Your task to perform on an android device: Search for dell xps on bestbuy, select the first entry, add it to the cart, then select checkout. Image 0: 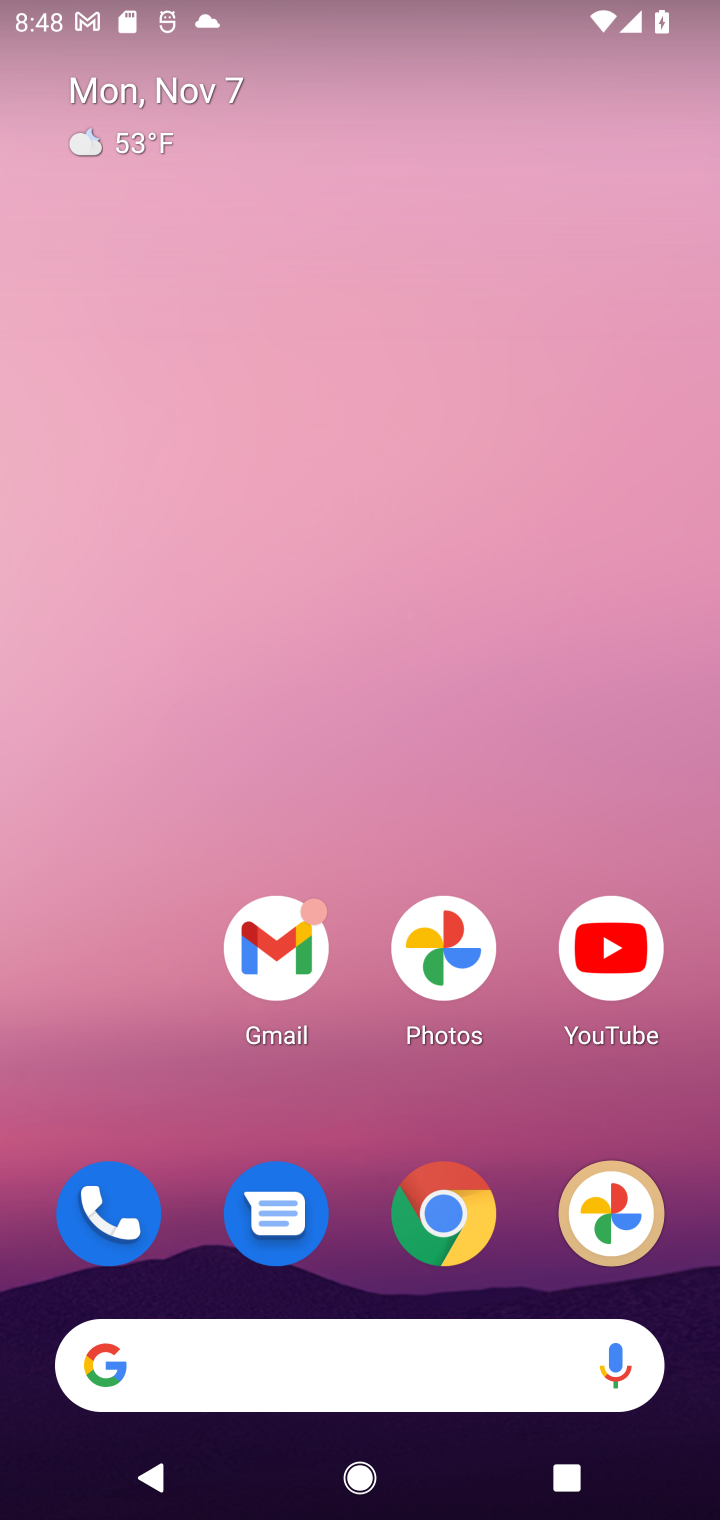
Step 0: click (425, 1241)
Your task to perform on an android device: Search for dell xps on bestbuy, select the first entry, add it to the cart, then select checkout. Image 1: 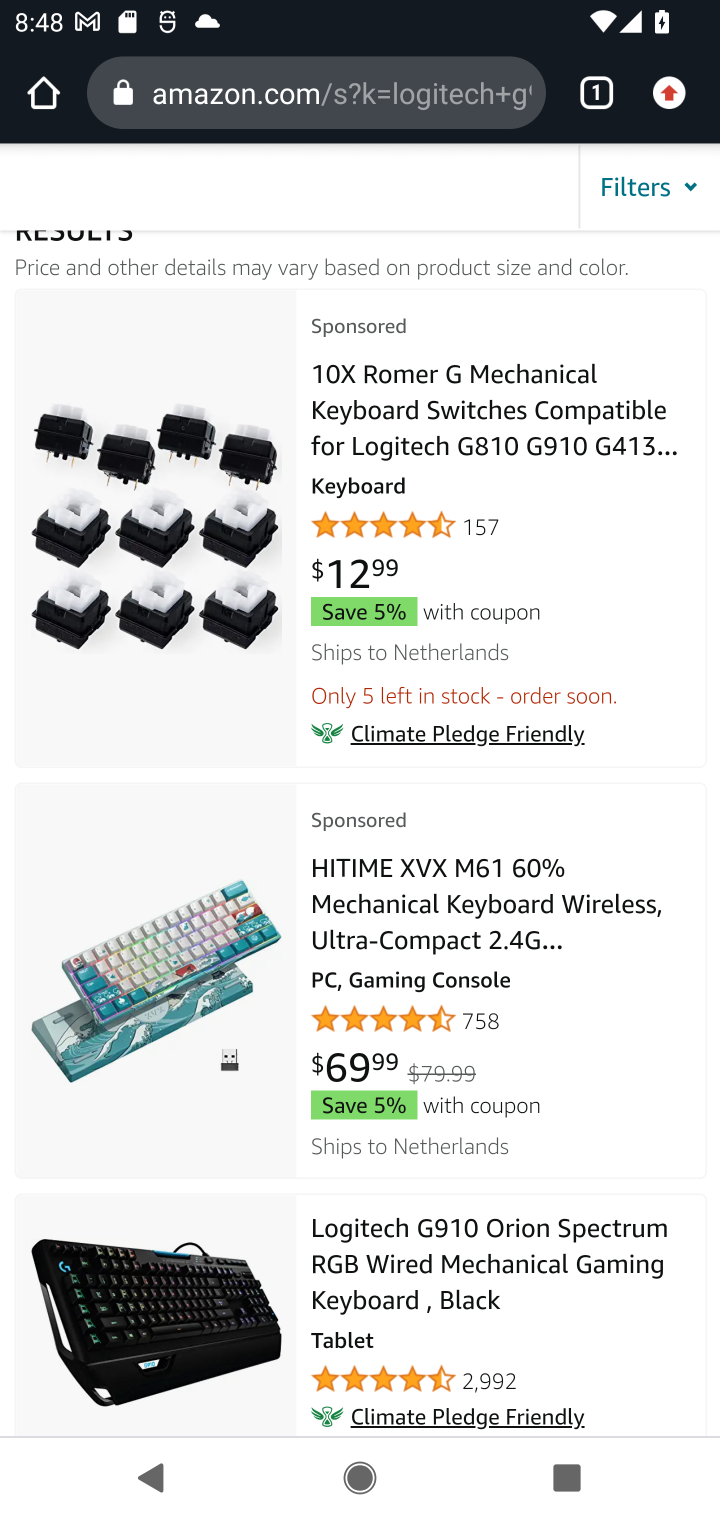
Step 1: click (334, 93)
Your task to perform on an android device: Search for dell xps on bestbuy, select the first entry, add it to the cart, then select checkout. Image 2: 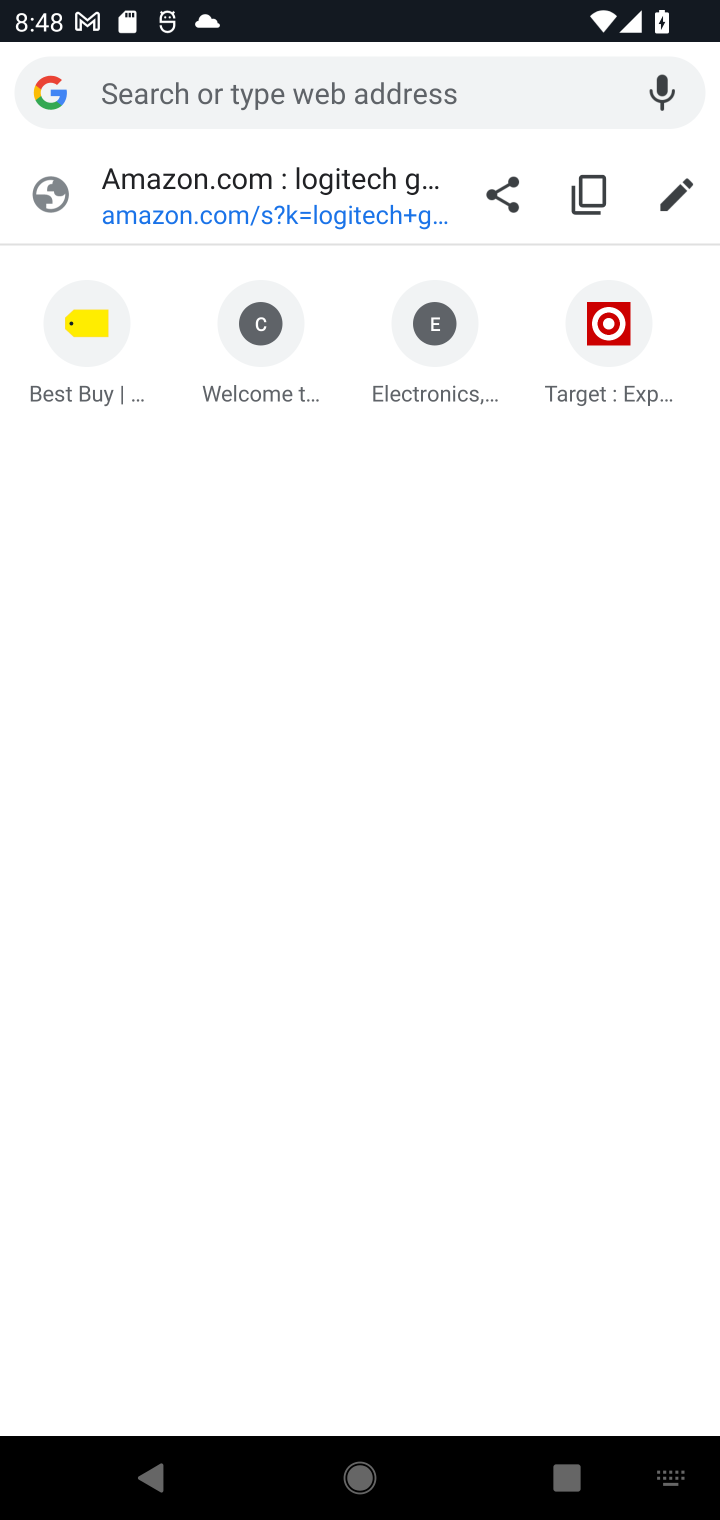
Step 2: click (101, 333)
Your task to perform on an android device: Search for dell xps on bestbuy, select the first entry, add it to the cart, then select checkout. Image 3: 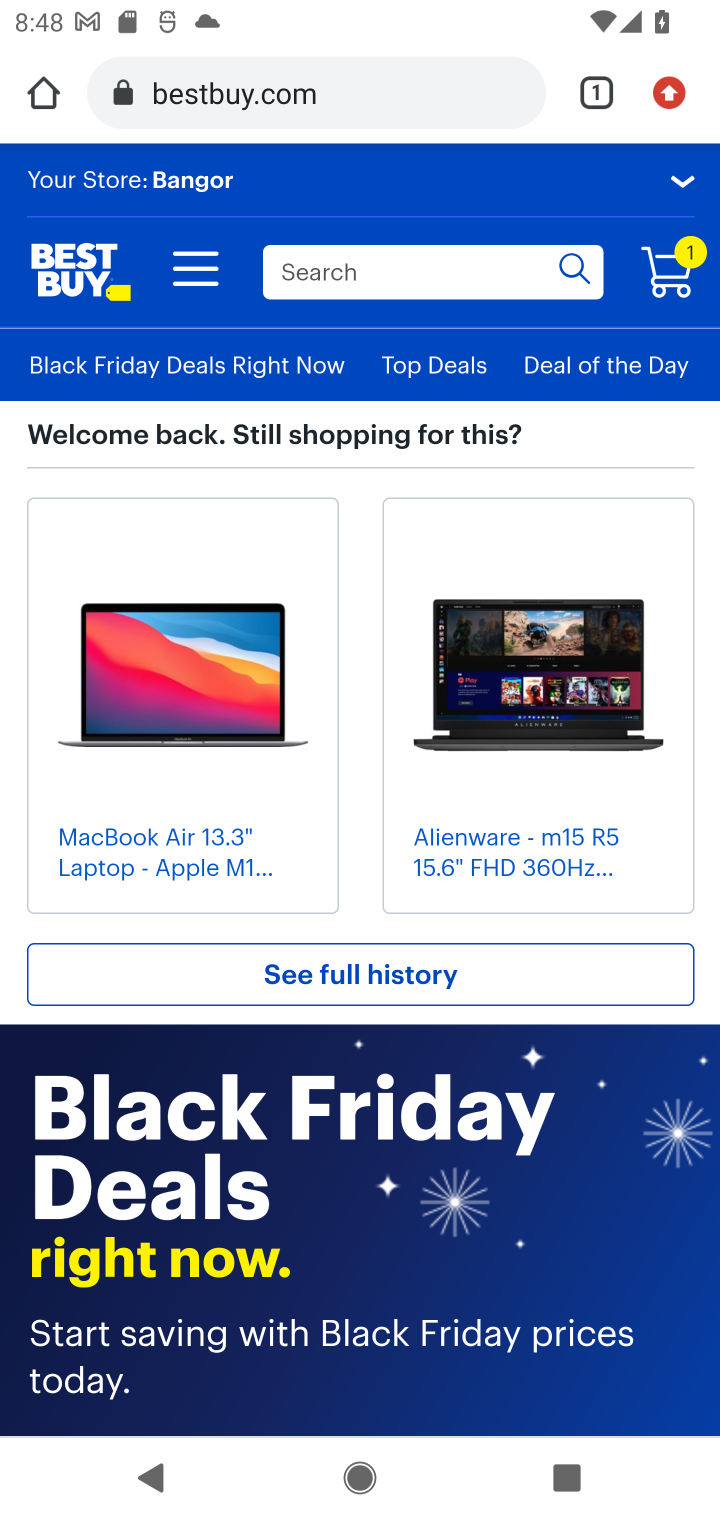
Step 3: click (328, 264)
Your task to perform on an android device: Search for dell xps on bestbuy, select the first entry, add it to the cart, then select checkout. Image 4: 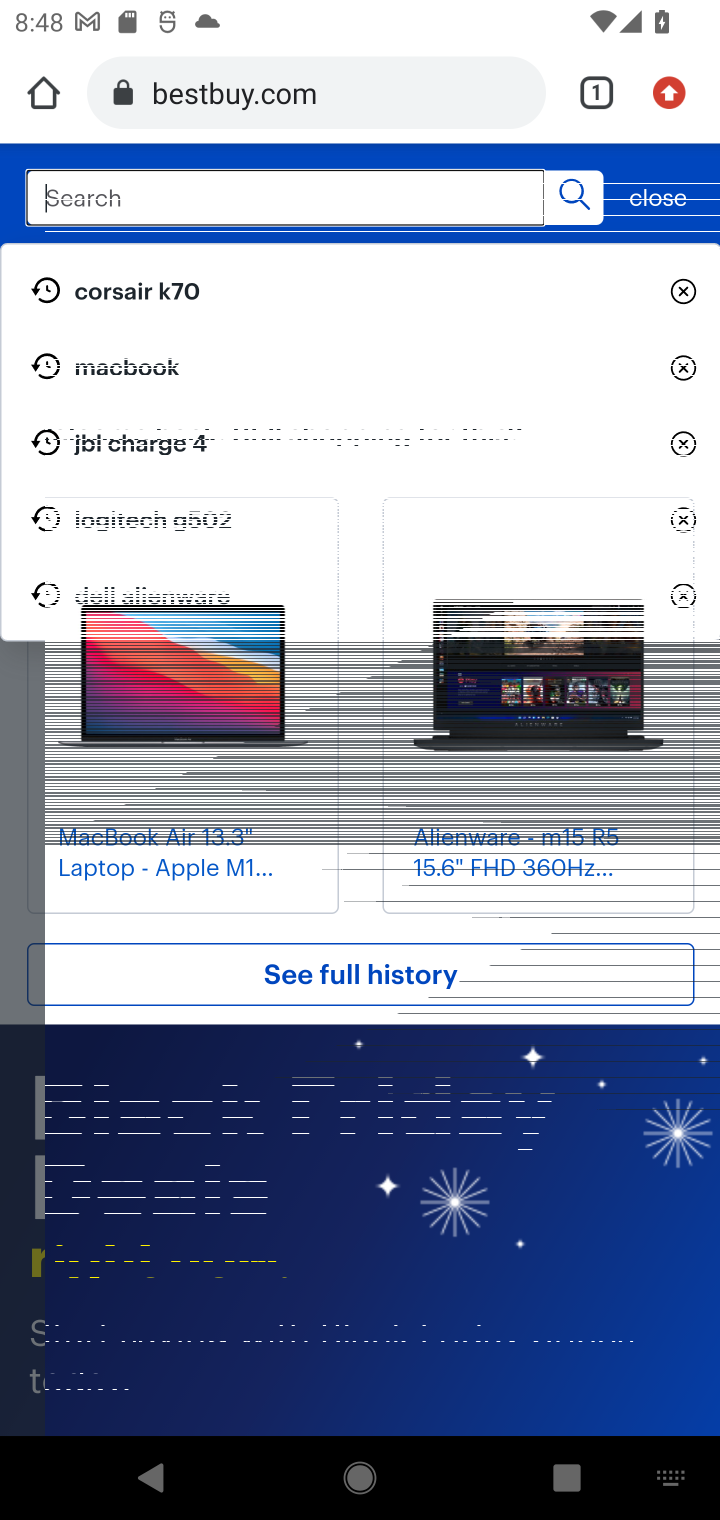
Step 4: type "dell xps "
Your task to perform on an android device: Search for dell xps on bestbuy, select the first entry, add it to the cart, then select checkout. Image 5: 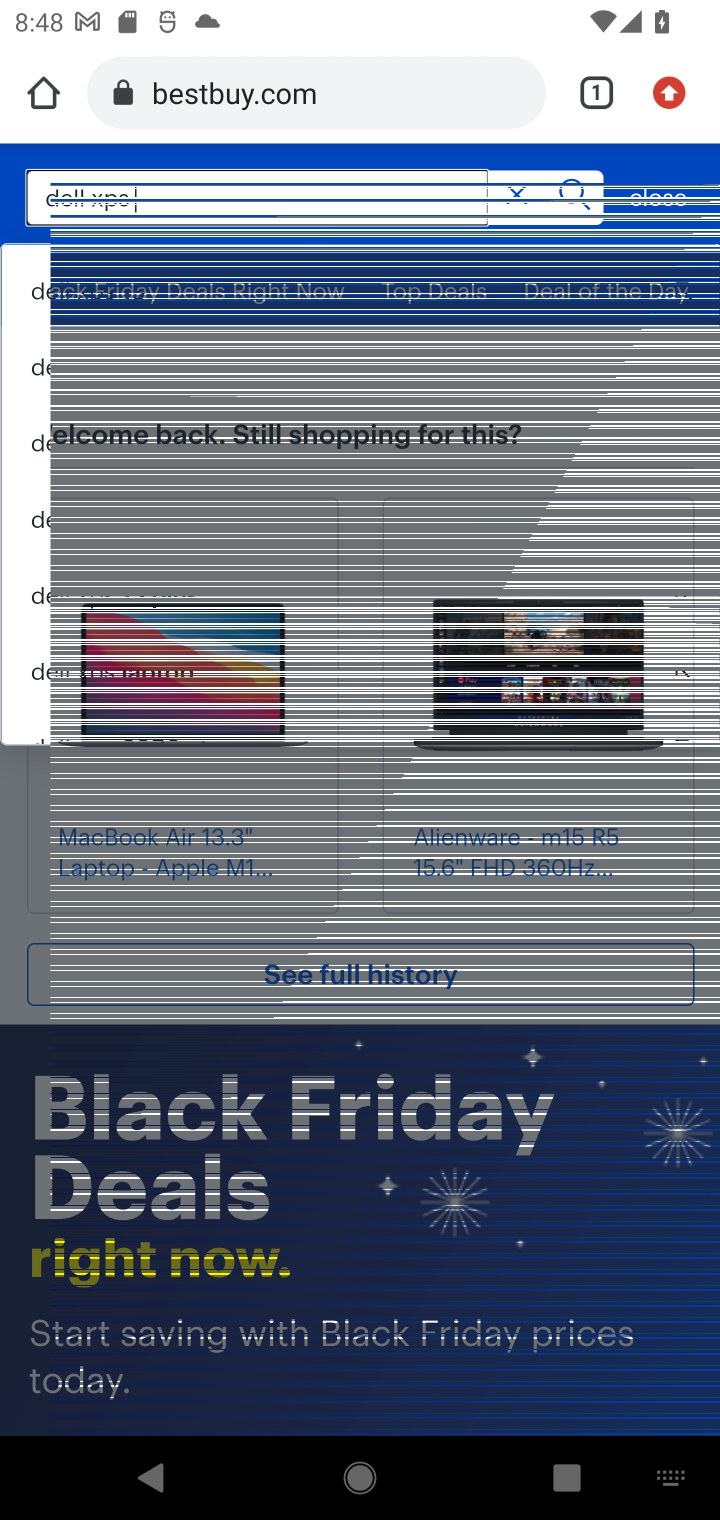
Step 5: click (567, 198)
Your task to perform on an android device: Search for dell xps on bestbuy, select the first entry, add it to the cart, then select checkout. Image 6: 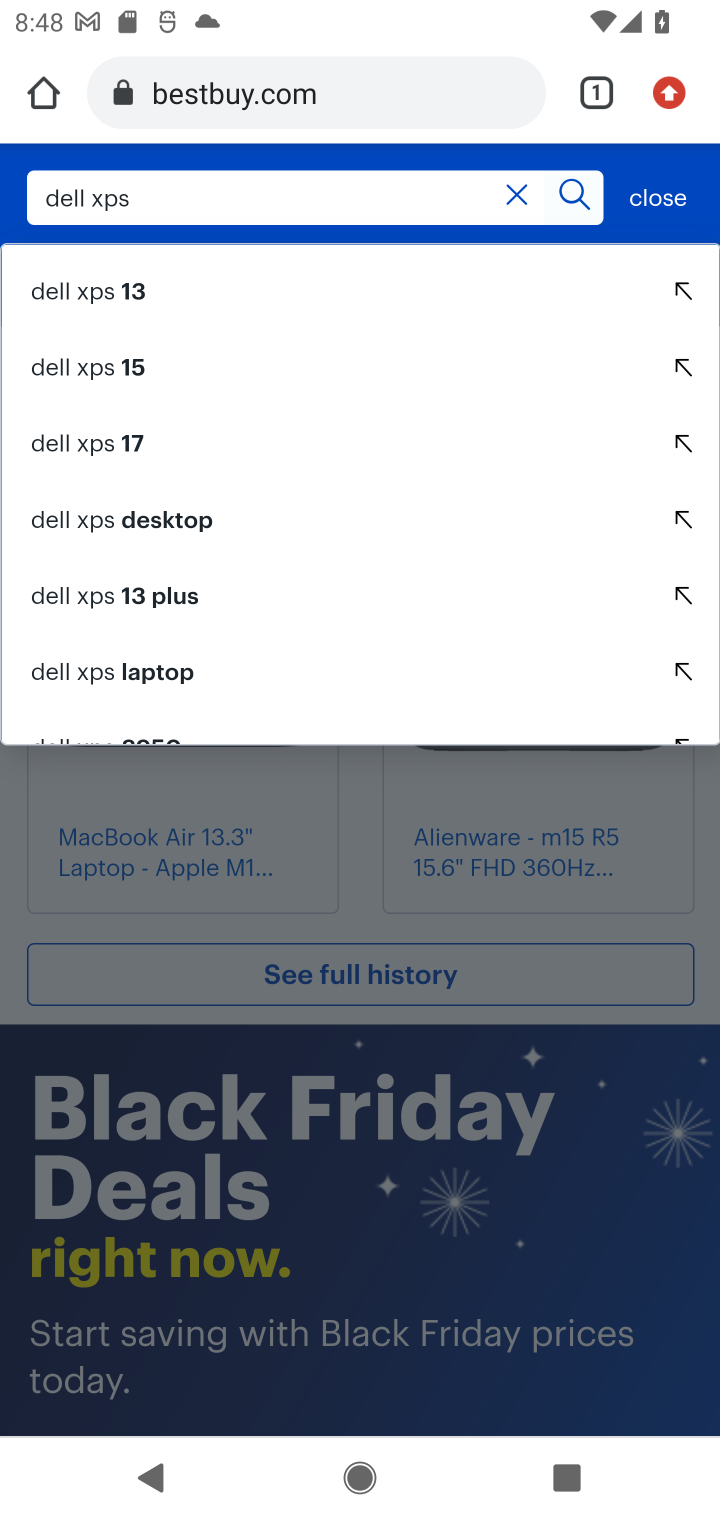
Step 6: click (567, 198)
Your task to perform on an android device: Search for dell xps on bestbuy, select the first entry, add it to the cart, then select checkout. Image 7: 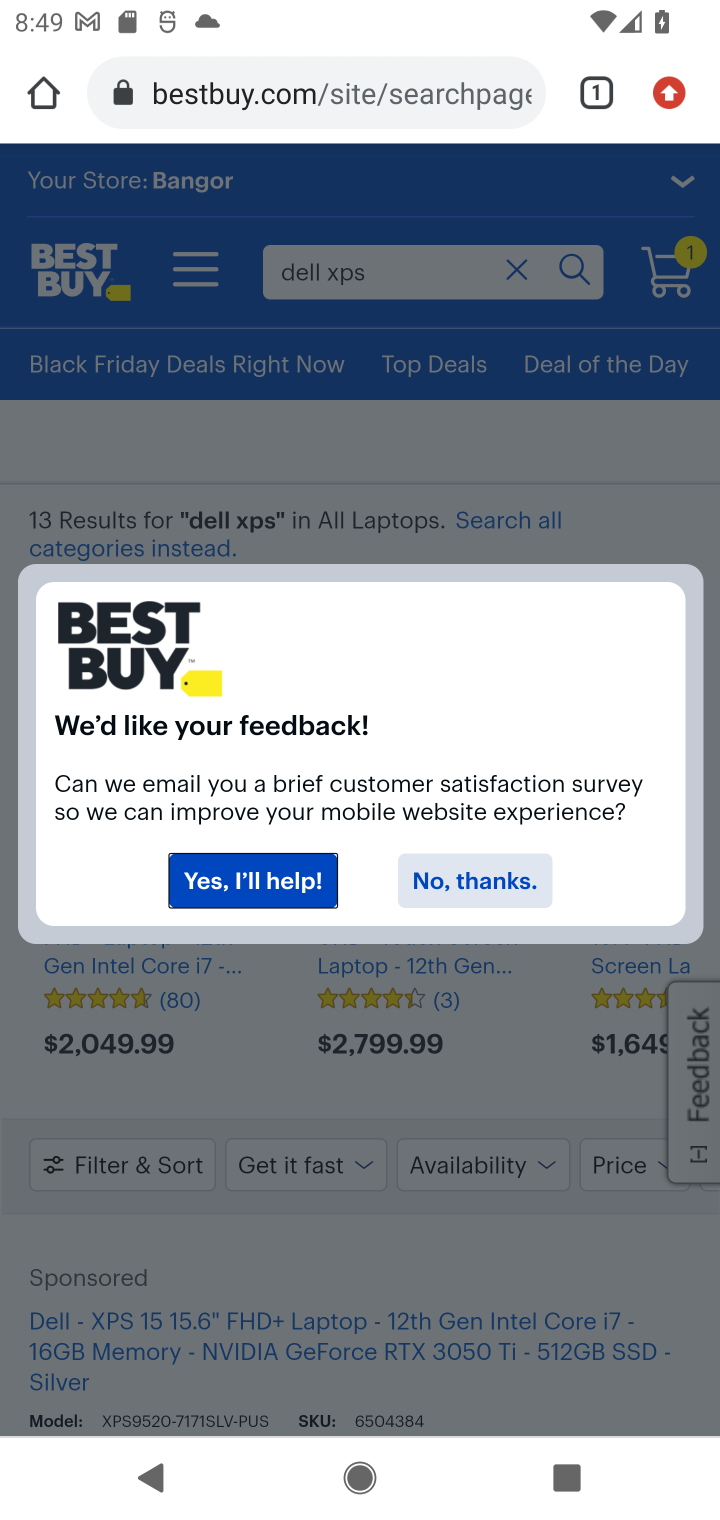
Step 7: click (492, 895)
Your task to perform on an android device: Search for dell xps on bestbuy, select the first entry, add it to the cart, then select checkout. Image 8: 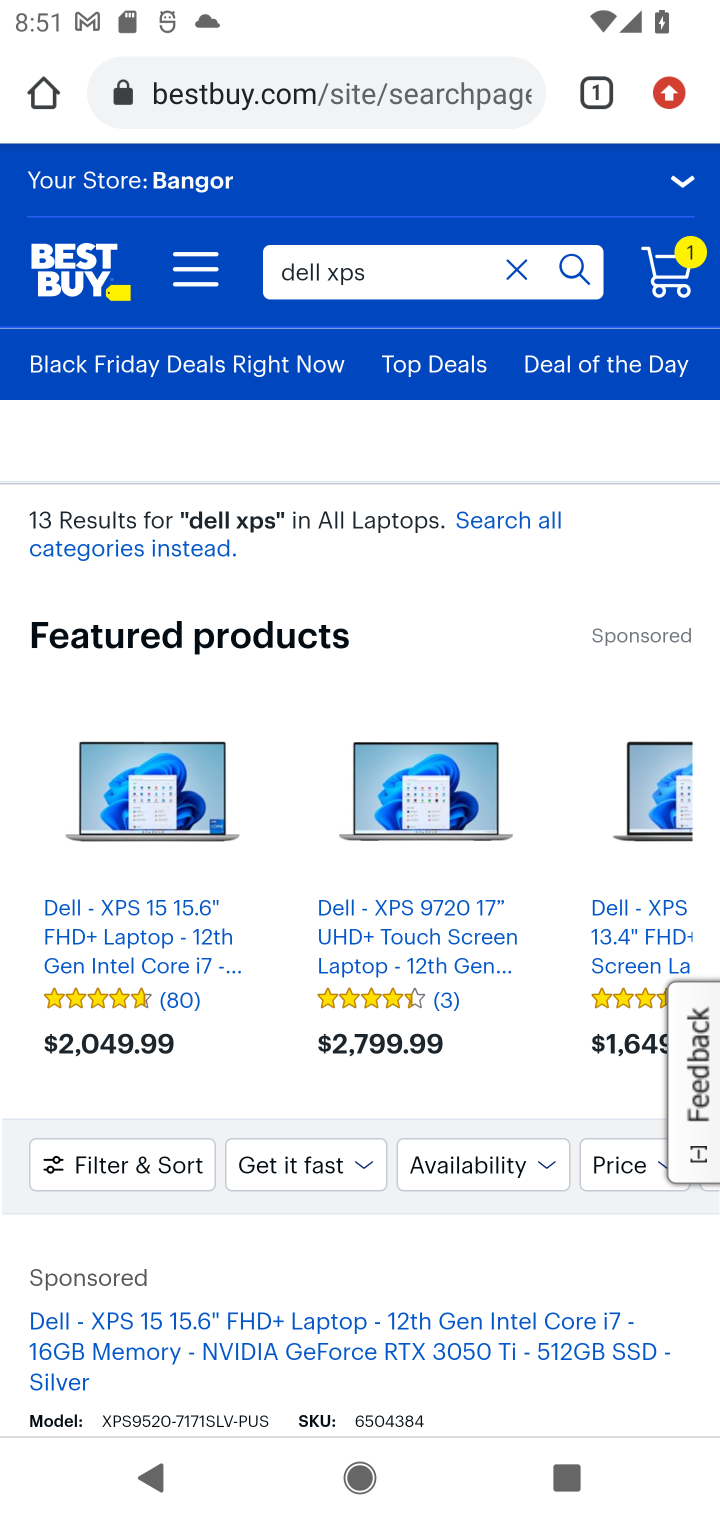
Step 8: drag from (189, 919) to (252, 282)
Your task to perform on an android device: Search for dell xps on bestbuy, select the first entry, add it to the cart, then select checkout. Image 9: 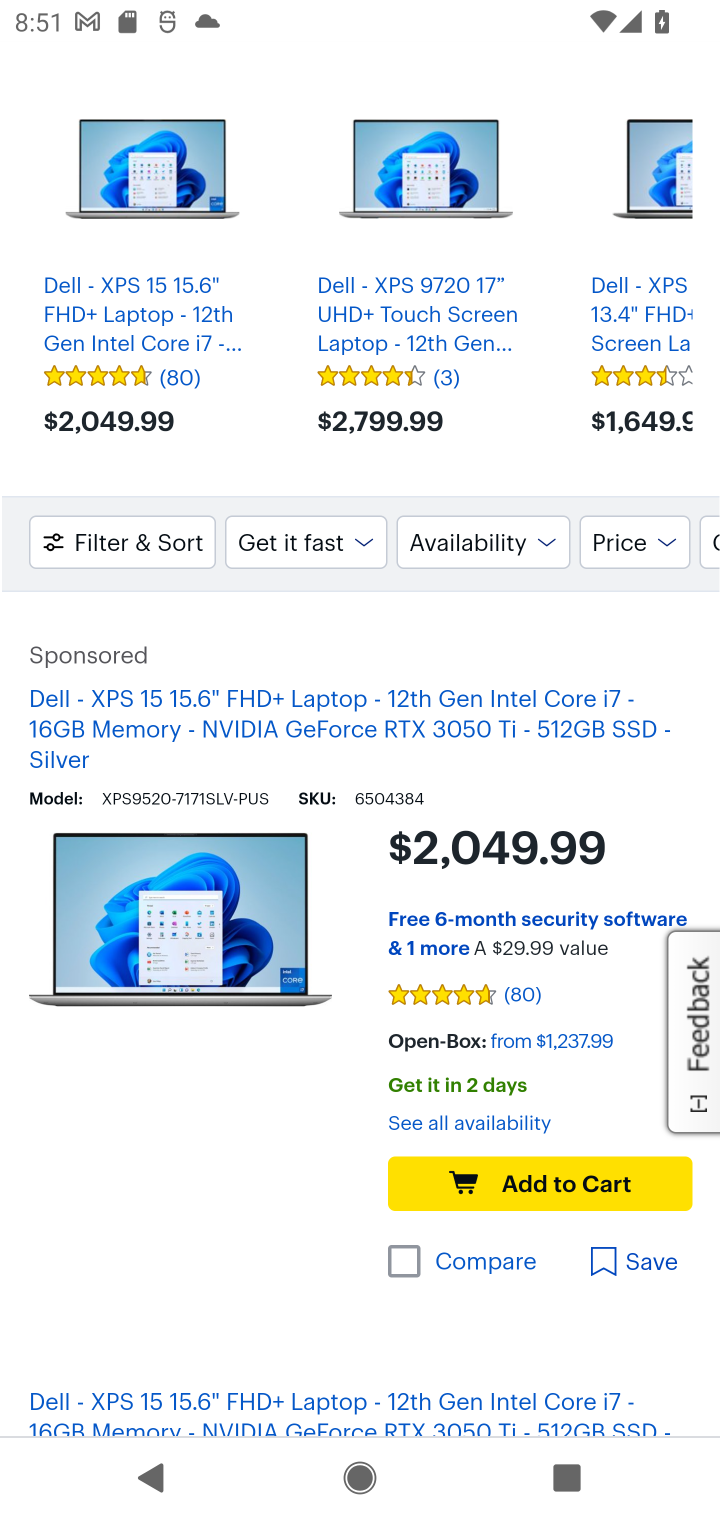
Step 9: click (563, 1202)
Your task to perform on an android device: Search for dell xps on bestbuy, select the first entry, add it to the cart, then select checkout. Image 10: 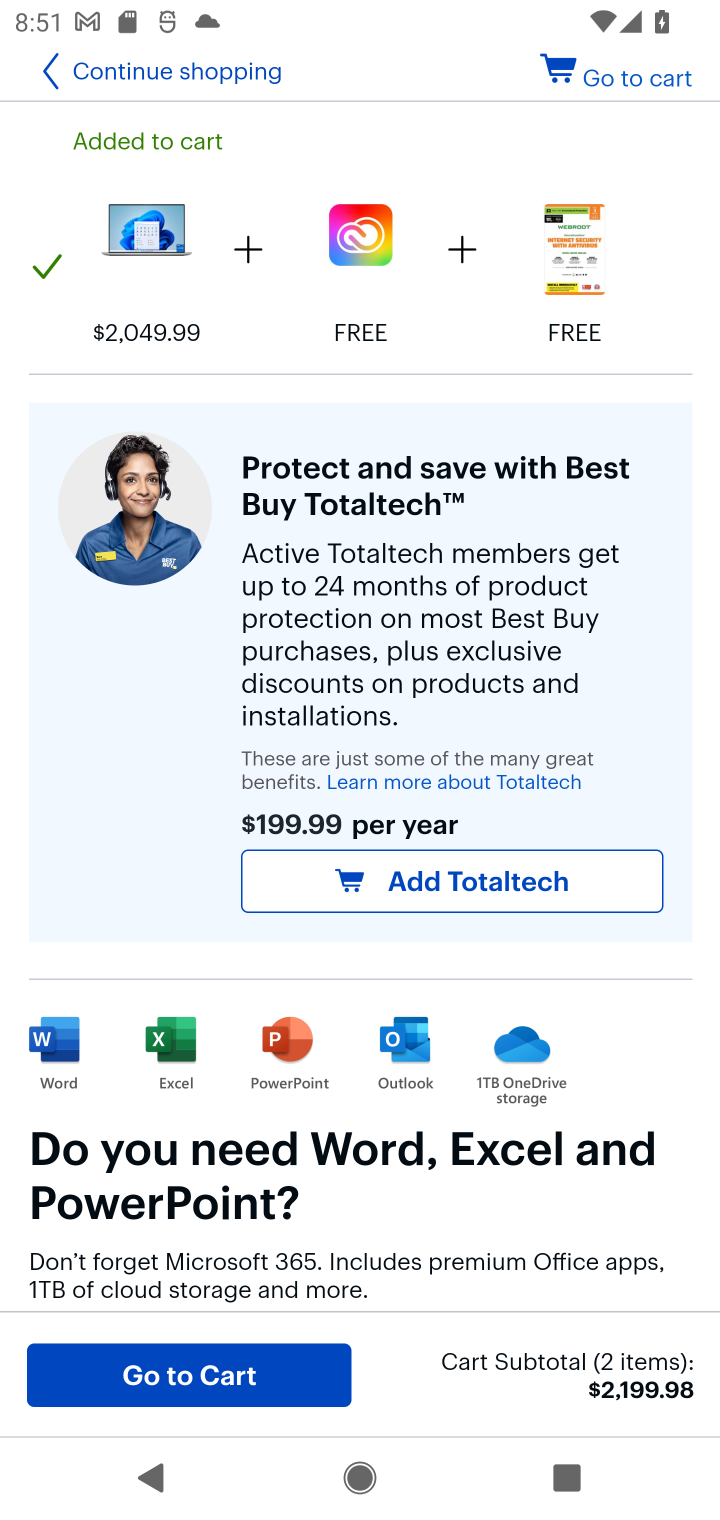
Step 10: click (608, 78)
Your task to perform on an android device: Search for dell xps on bestbuy, select the first entry, add it to the cart, then select checkout. Image 11: 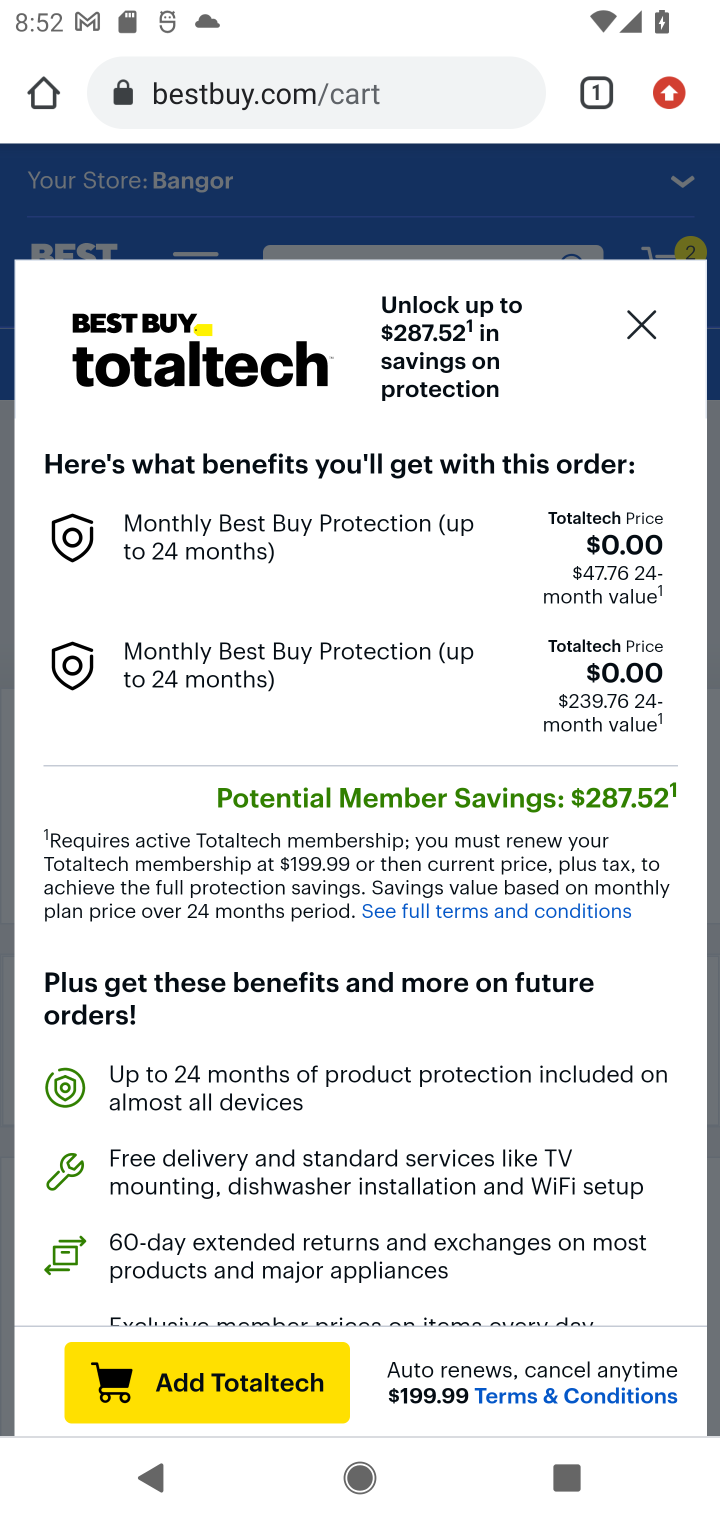
Step 11: click (638, 338)
Your task to perform on an android device: Search for dell xps on bestbuy, select the first entry, add it to the cart, then select checkout. Image 12: 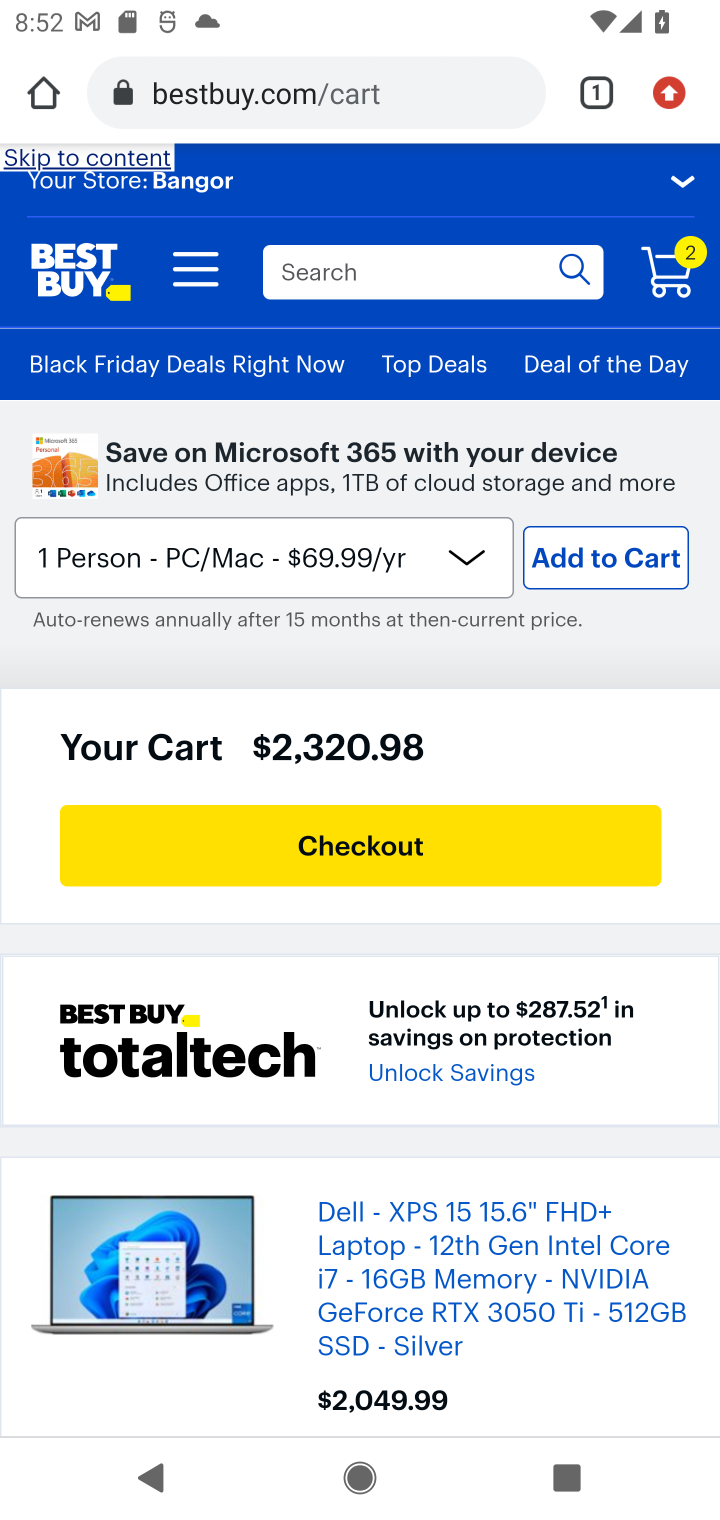
Step 12: click (370, 845)
Your task to perform on an android device: Search for dell xps on bestbuy, select the first entry, add it to the cart, then select checkout. Image 13: 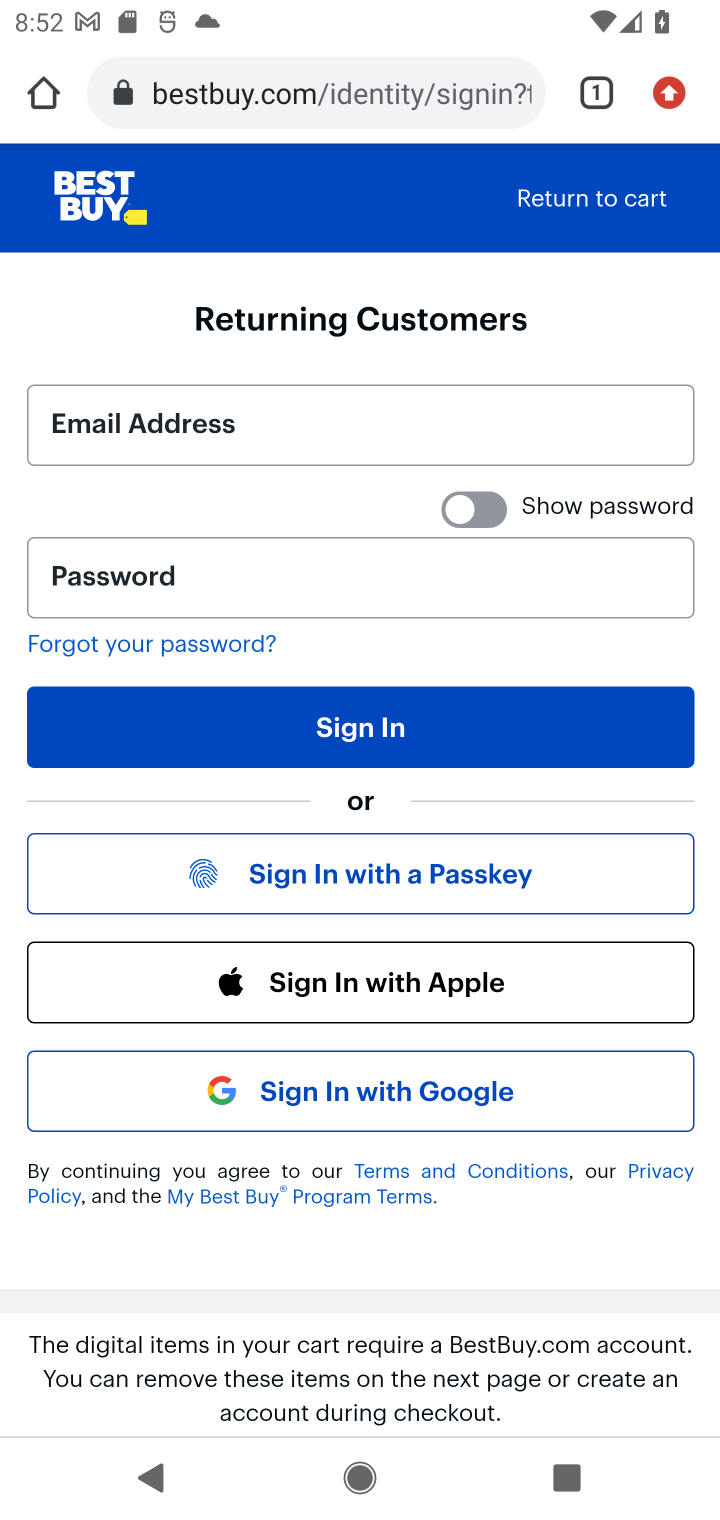
Step 13: task complete